Your task to perform on an android device: Open the web browser Image 0: 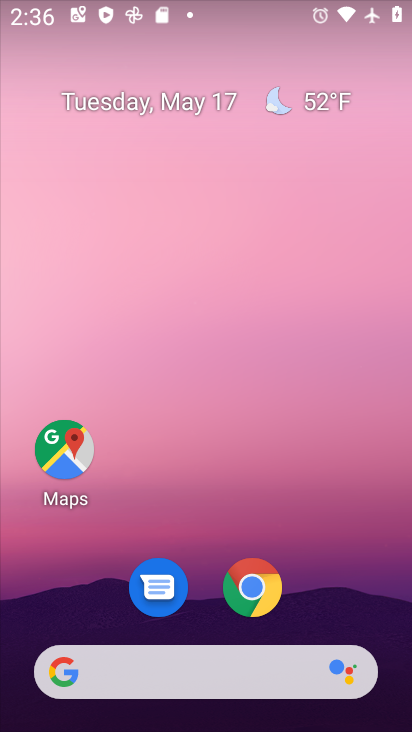
Step 0: click (272, 605)
Your task to perform on an android device: Open the web browser Image 1: 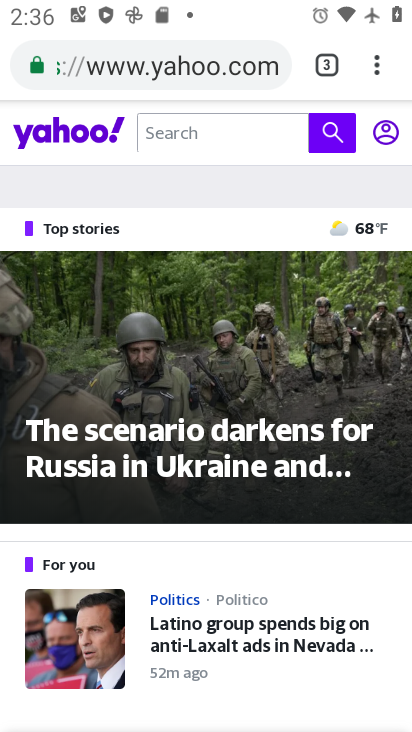
Step 1: task complete